Your task to perform on an android device: Clear all items from cart on bestbuy.com. Image 0: 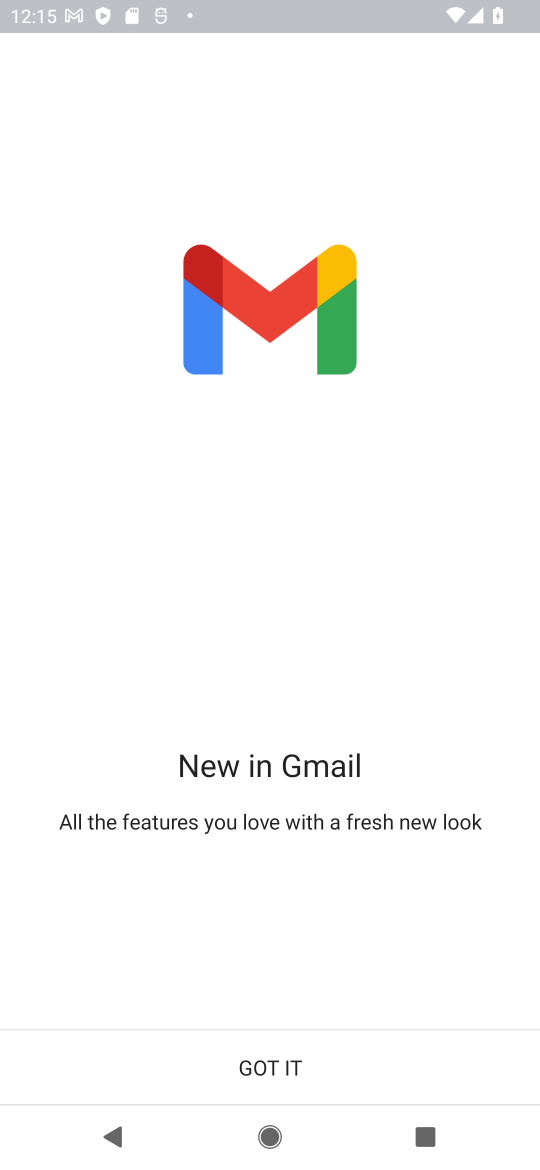
Step 0: press home button
Your task to perform on an android device: Clear all items from cart on bestbuy.com. Image 1: 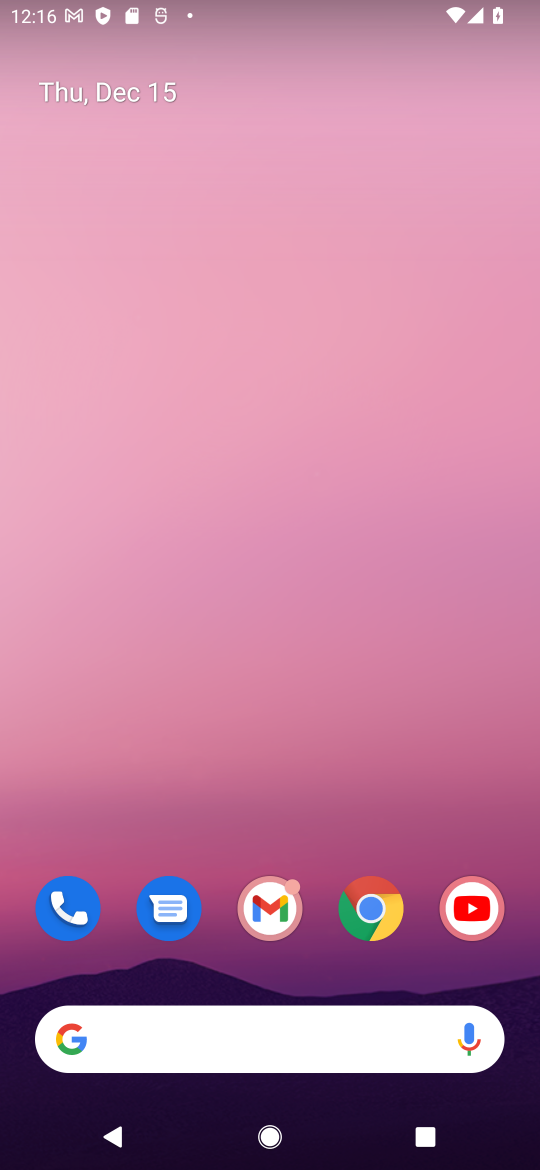
Step 1: click (381, 914)
Your task to perform on an android device: Clear all items from cart on bestbuy.com. Image 2: 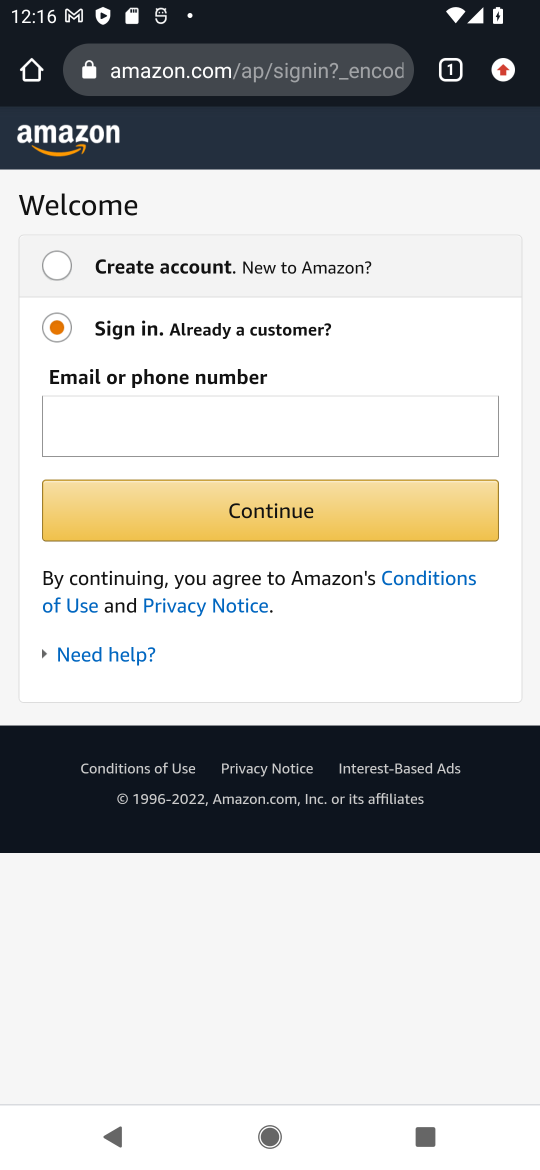
Step 2: click (193, 58)
Your task to perform on an android device: Clear all items from cart on bestbuy.com. Image 3: 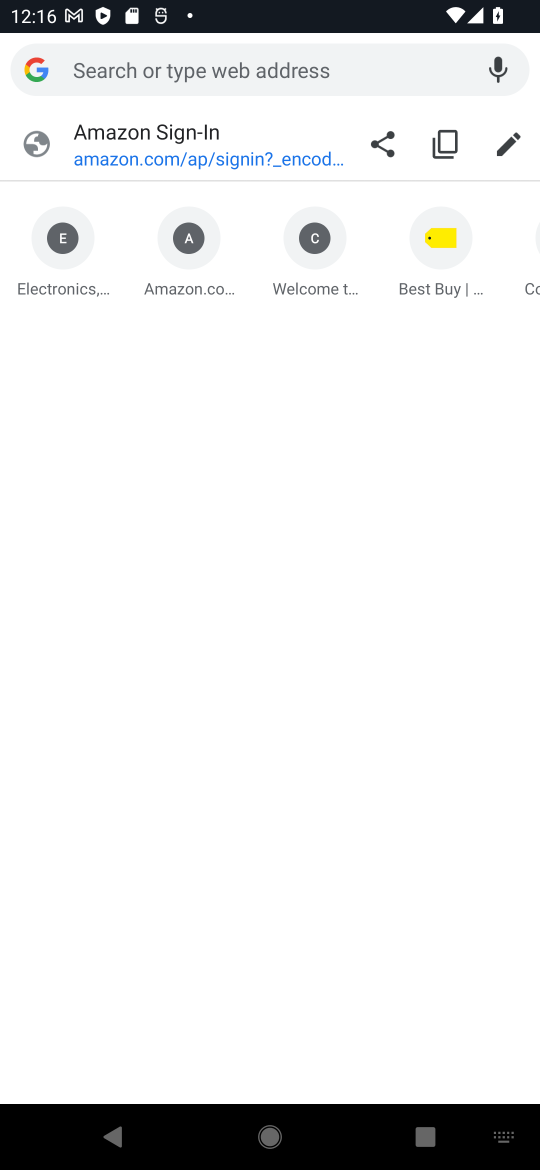
Step 3: click (450, 283)
Your task to perform on an android device: Clear all items from cart on bestbuy.com. Image 4: 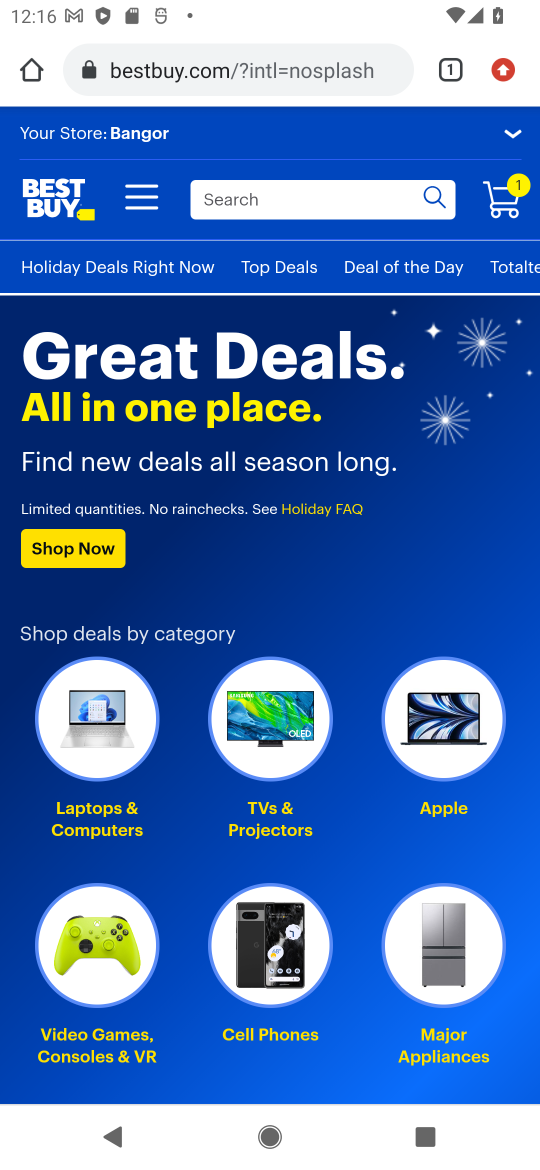
Step 4: click (509, 200)
Your task to perform on an android device: Clear all items from cart on bestbuy.com. Image 5: 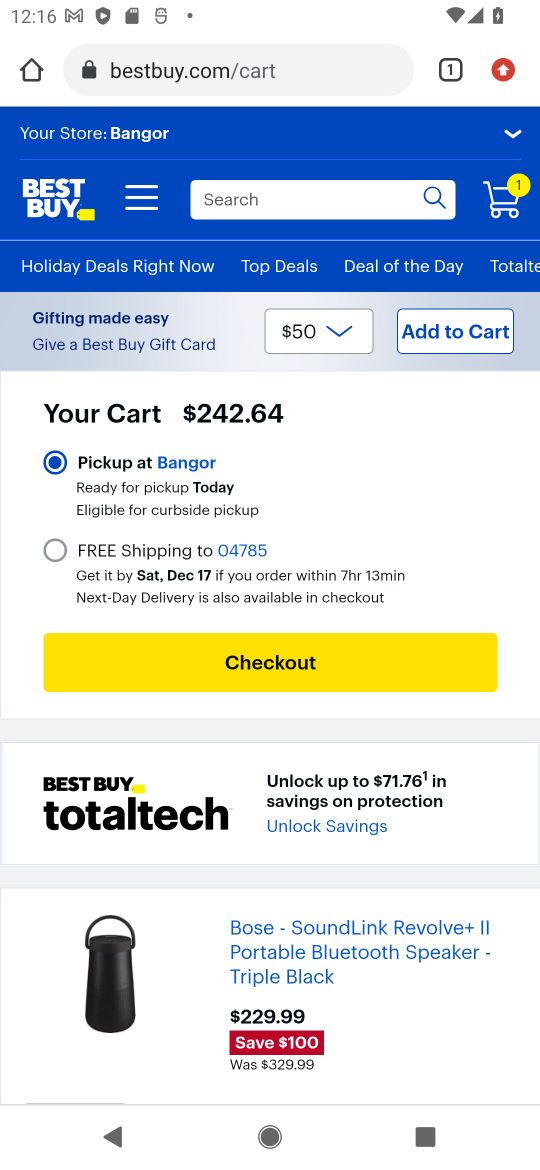
Step 5: drag from (207, 680) to (251, 276)
Your task to perform on an android device: Clear all items from cart on bestbuy.com. Image 6: 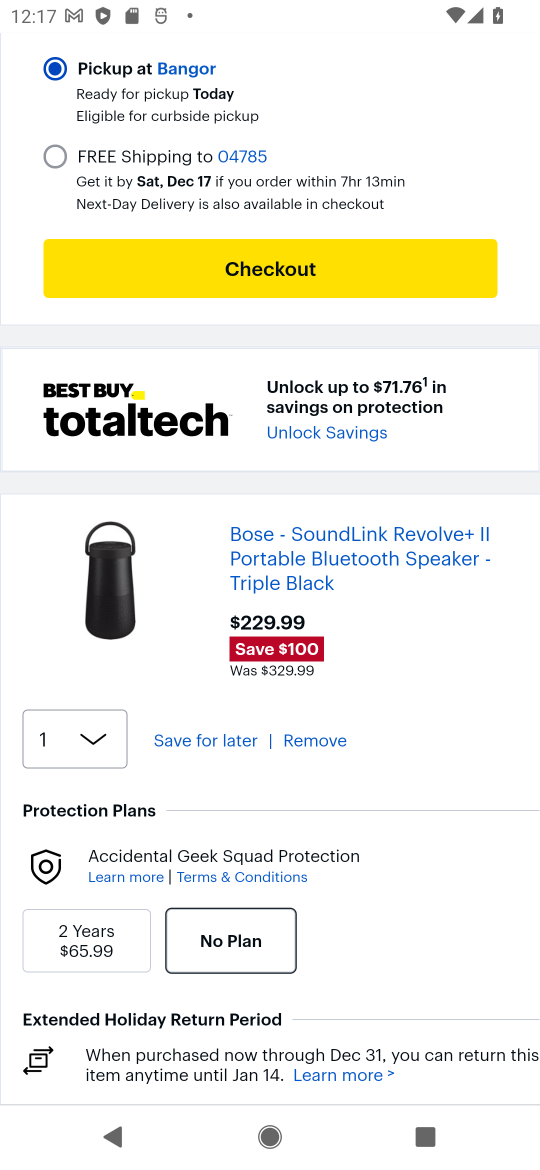
Step 6: click (317, 741)
Your task to perform on an android device: Clear all items from cart on bestbuy.com. Image 7: 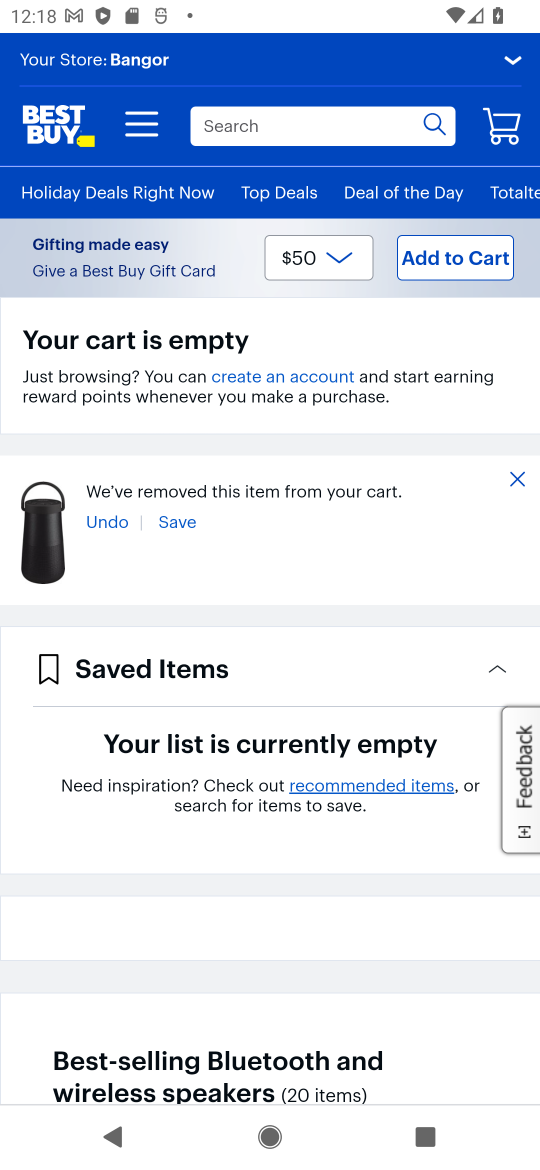
Step 7: task complete